Your task to perform on an android device: see tabs open on other devices in the chrome app Image 0: 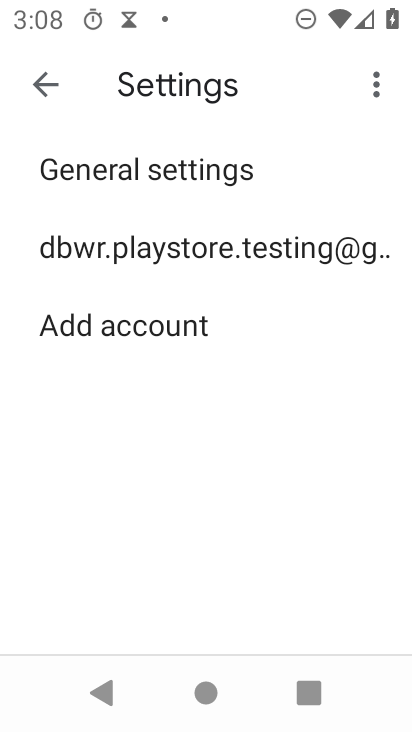
Step 0: press home button
Your task to perform on an android device: see tabs open on other devices in the chrome app Image 1: 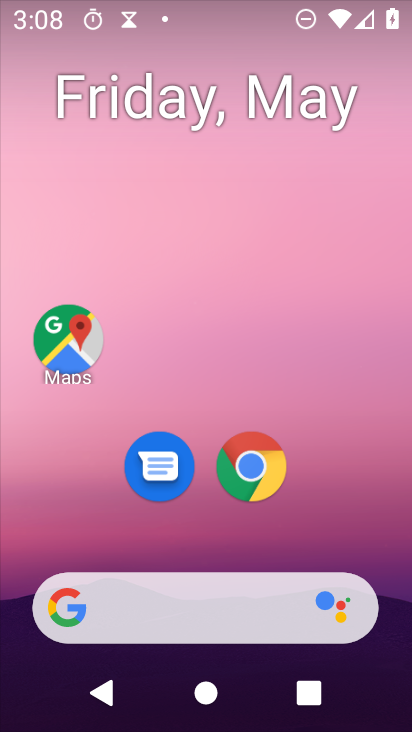
Step 1: drag from (328, 542) to (258, 1)
Your task to perform on an android device: see tabs open on other devices in the chrome app Image 2: 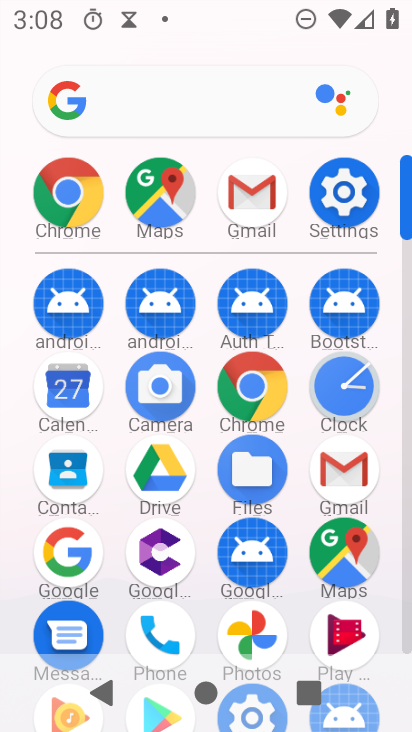
Step 2: click (76, 180)
Your task to perform on an android device: see tabs open on other devices in the chrome app Image 3: 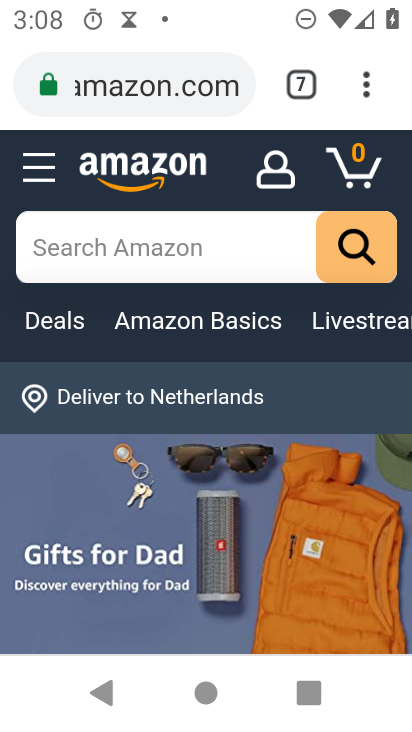
Step 3: task complete